Your task to perform on an android device: Open my contact list Image 0: 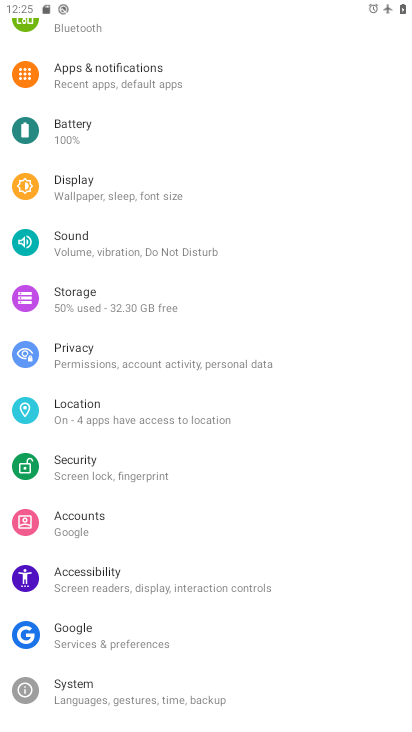
Step 0: press home button
Your task to perform on an android device: Open my contact list Image 1: 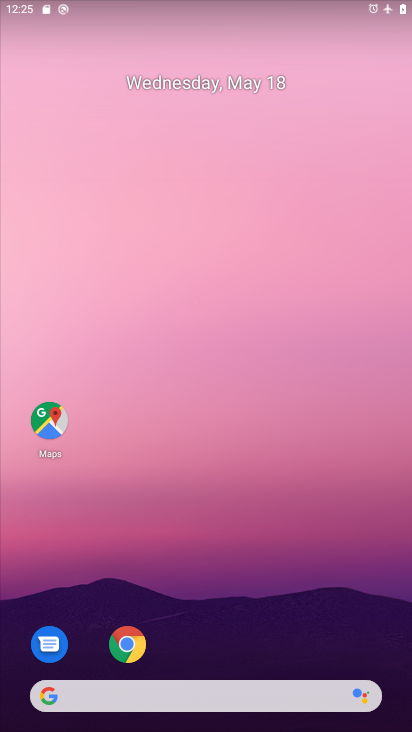
Step 1: drag from (200, 641) to (247, 85)
Your task to perform on an android device: Open my contact list Image 2: 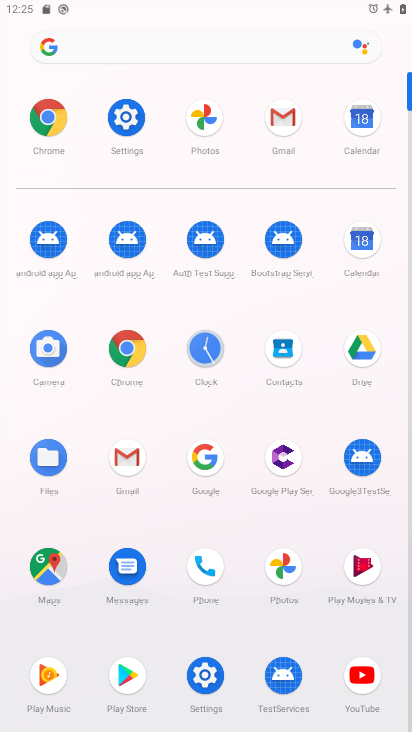
Step 2: click (279, 351)
Your task to perform on an android device: Open my contact list Image 3: 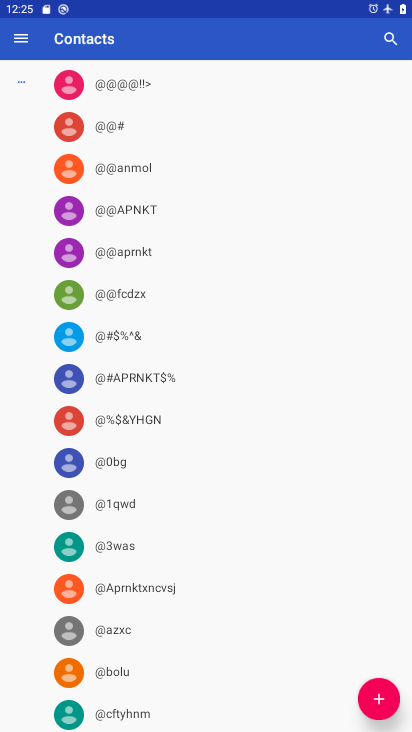
Step 3: task complete